Your task to perform on an android device: Go to ESPN.com Image 0: 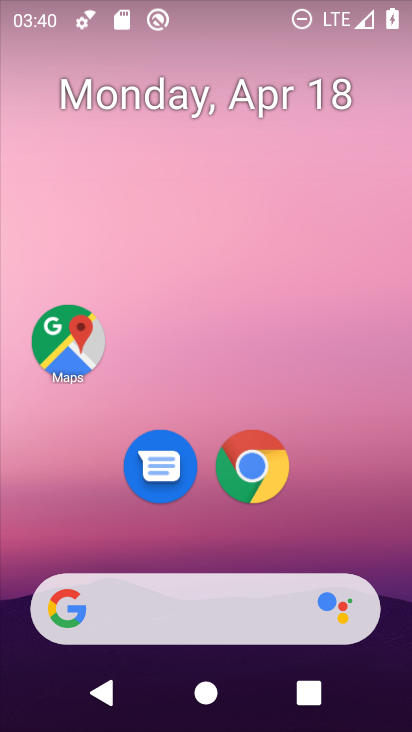
Step 0: click (278, 481)
Your task to perform on an android device: Go to ESPN.com Image 1: 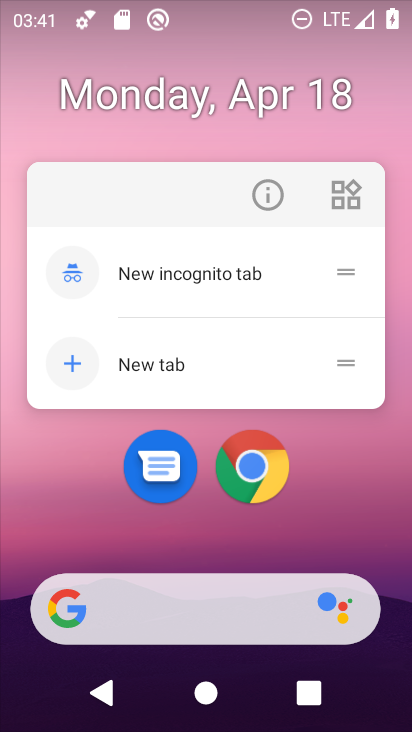
Step 1: click (278, 481)
Your task to perform on an android device: Go to ESPN.com Image 2: 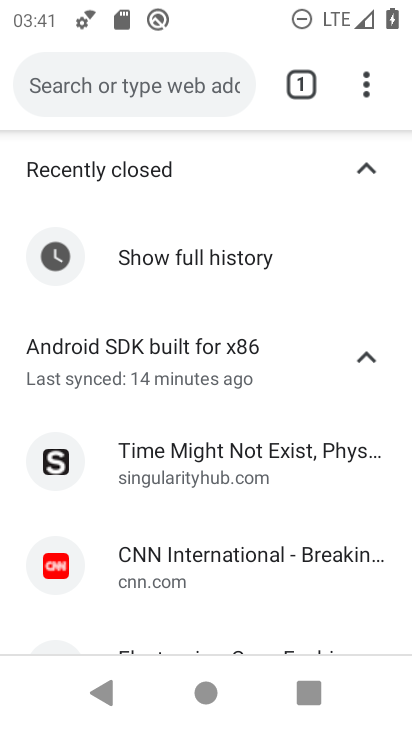
Step 2: click (203, 88)
Your task to perform on an android device: Go to ESPN.com Image 3: 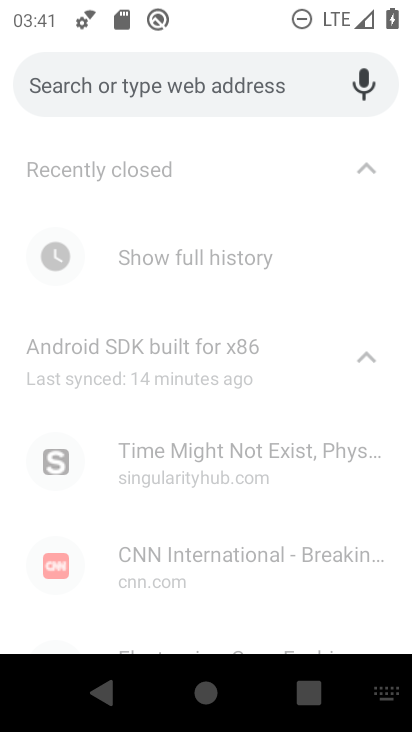
Step 3: type "espn,com"
Your task to perform on an android device: Go to ESPN.com Image 4: 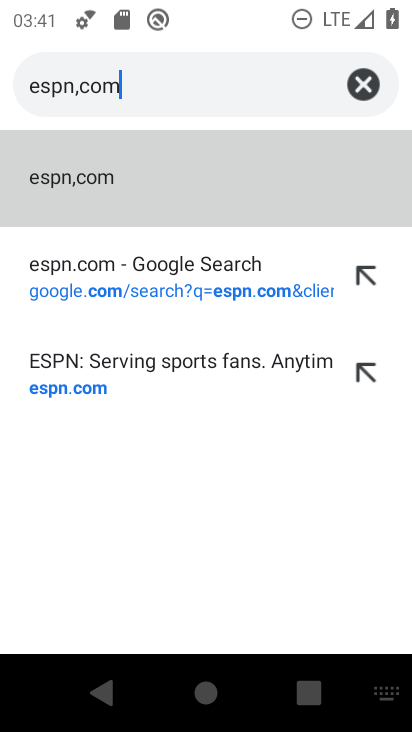
Step 4: click (244, 178)
Your task to perform on an android device: Go to ESPN.com Image 5: 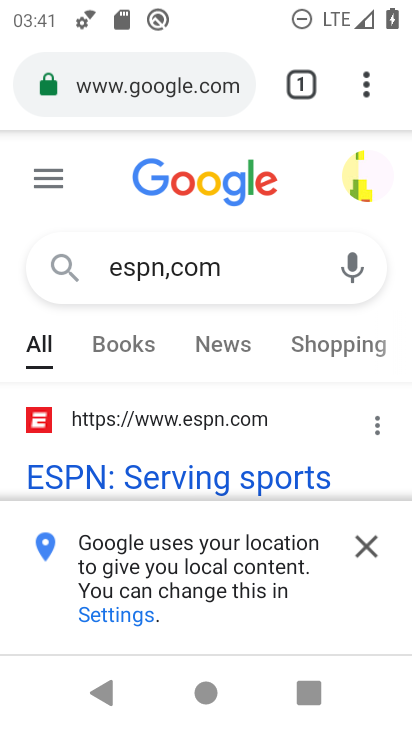
Step 5: click (365, 556)
Your task to perform on an android device: Go to ESPN.com Image 6: 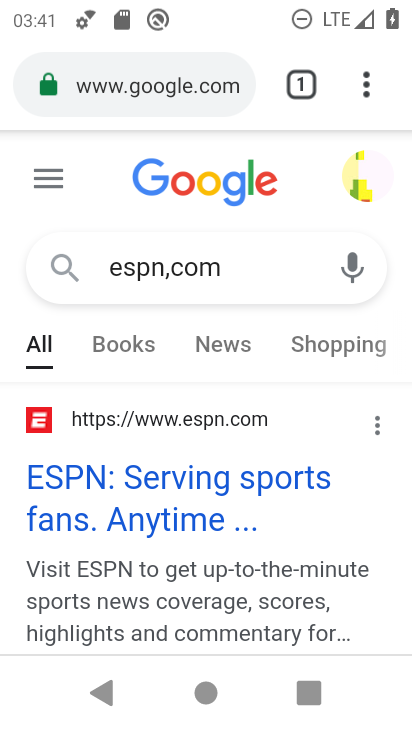
Step 6: click (275, 481)
Your task to perform on an android device: Go to ESPN.com Image 7: 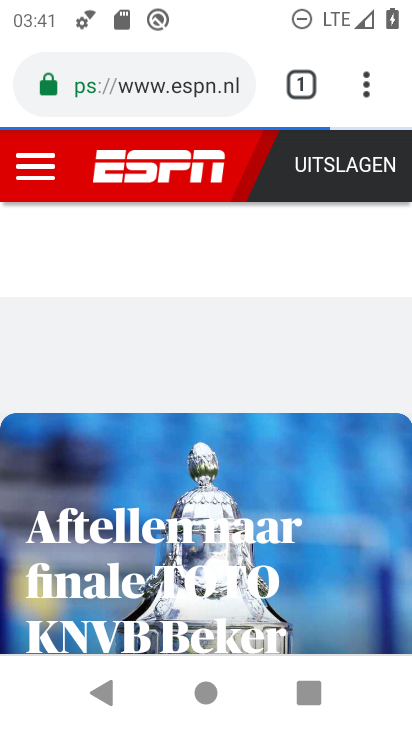
Step 7: task complete